Your task to perform on an android device: Open network settings Image 0: 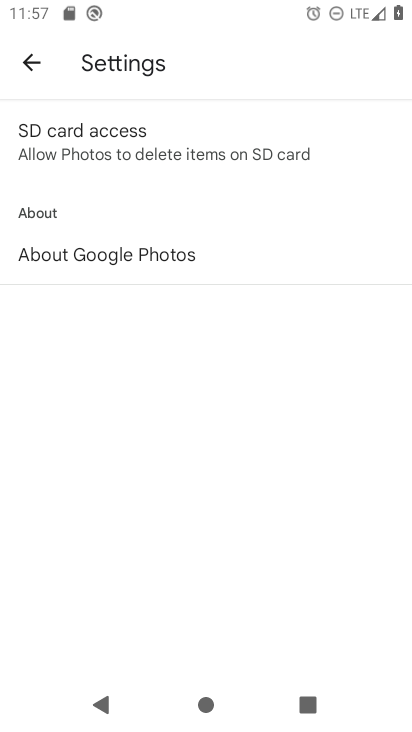
Step 0: press home button
Your task to perform on an android device: Open network settings Image 1: 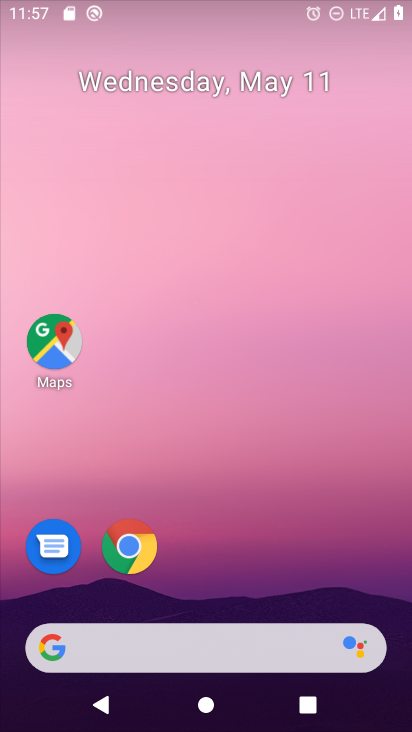
Step 1: drag from (395, 644) to (284, 31)
Your task to perform on an android device: Open network settings Image 2: 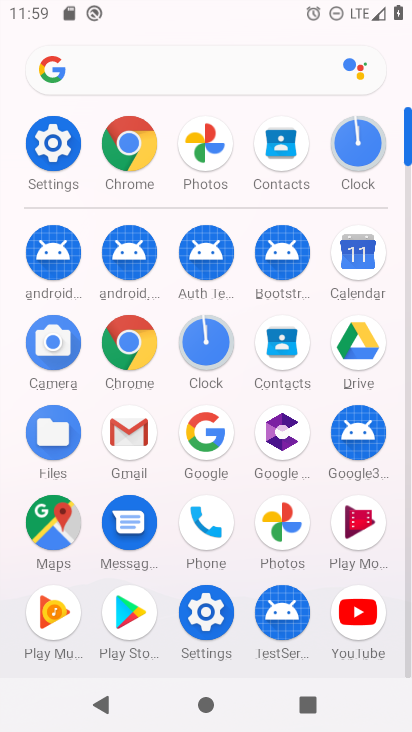
Step 2: click (227, 620)
Your task to perform on an android device: Open network settings Image 3: 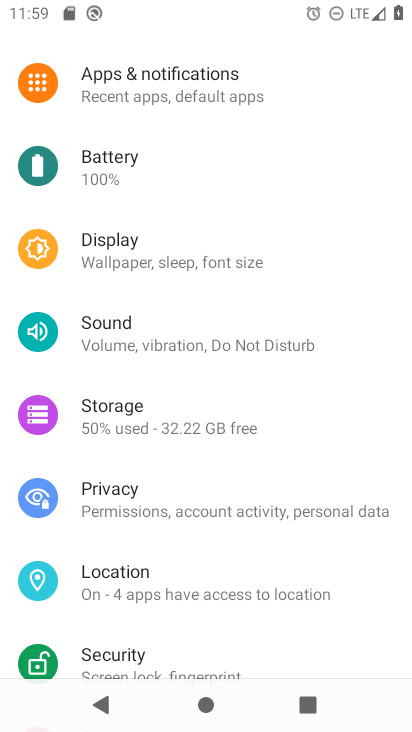
Step 3: drag from (253, 96) to (289, 629)
Your task to perform on an android device: Open network settings Image 4: 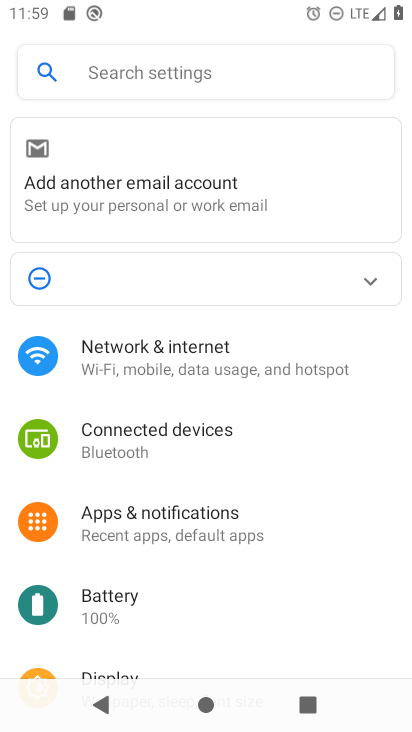
Step 4: click (150, 367)
Your task to perform on an android device: Open network settings Image 5: 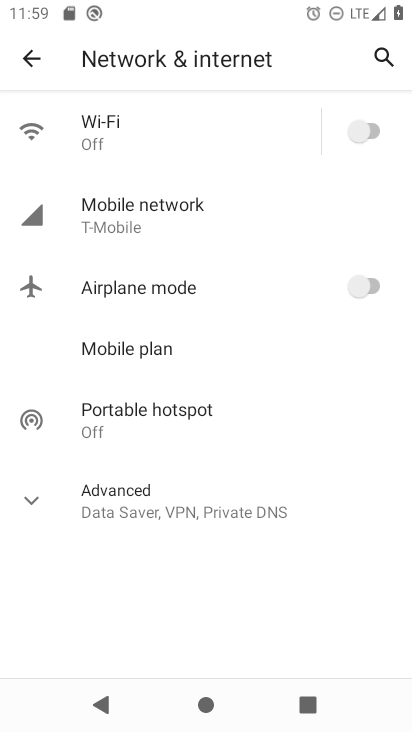
Step 5: click (174, 139)
Your task to perform on an android device: Open network settings Image 6: 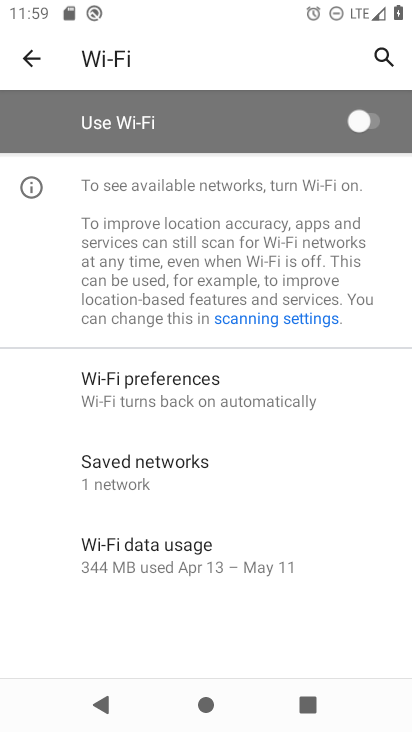
Step 6: task complete